Your task to perform on an android device: set default search engine in the chrome app Image 0: 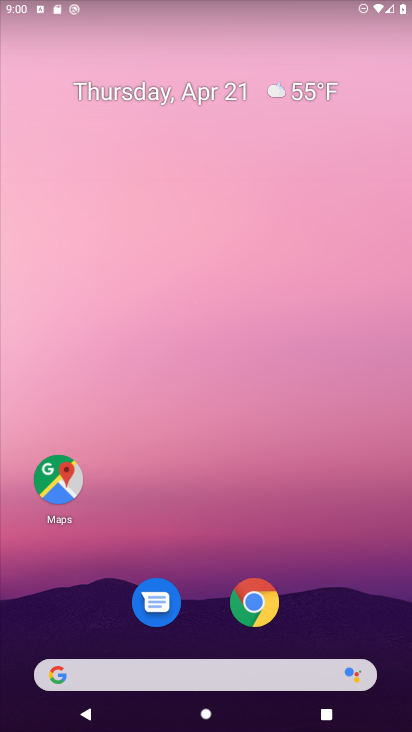
Step 0: click (257, 610)
Your task to perform on an android device: set default search engine in the chrome app Image 1: 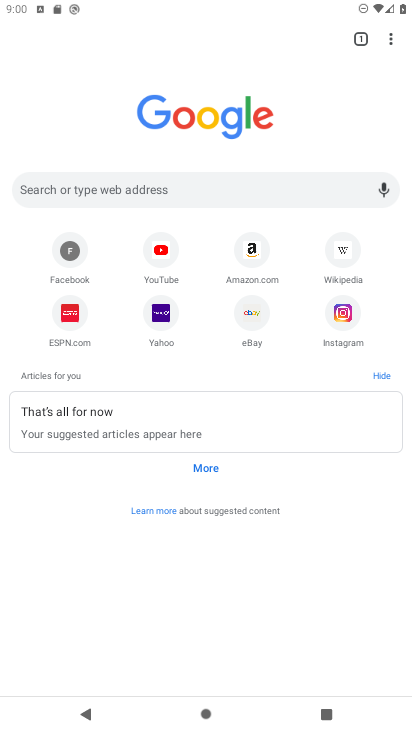
Step 1: click (394, 43)
Your task to perform on an android device: set default search engine in the chrome app Image 2: 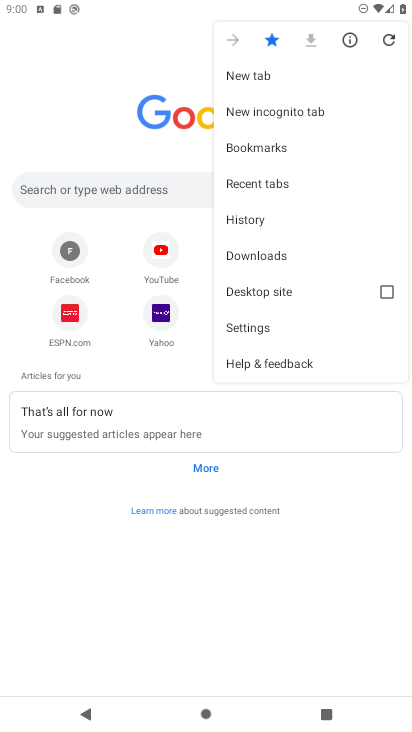
Step 2: click (244, 327)
Your task to perform on an android device: set default search engine in the chrome app Image 3: 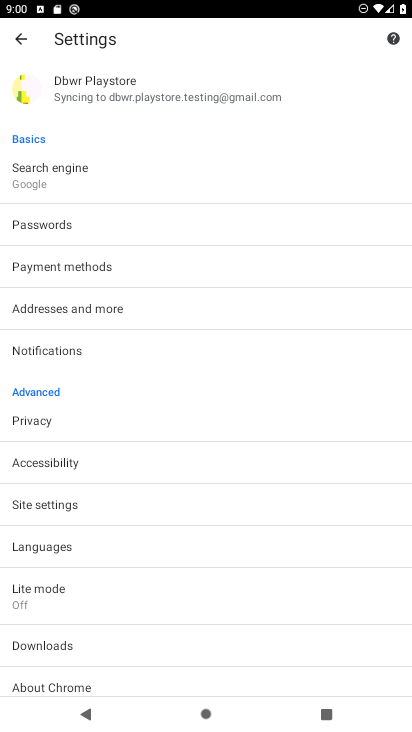
Step 3: click (59, 202)
Your task to perform on an android device: set default search engine in the chrome app Image 4: 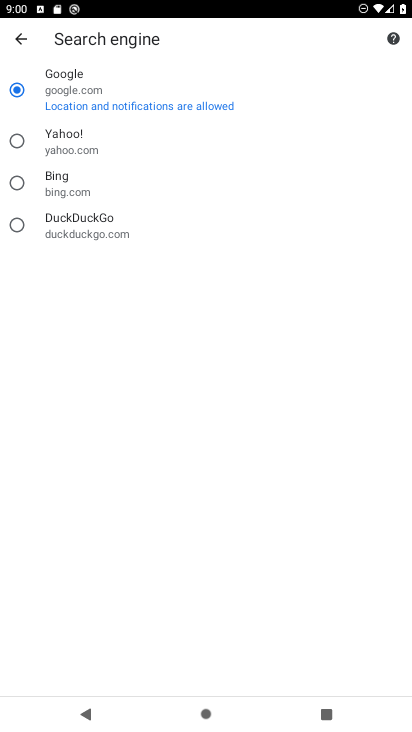
Step 4: click (88, 200)
Your task to perform on an android device: set default search engine in the chrome app Image 5: 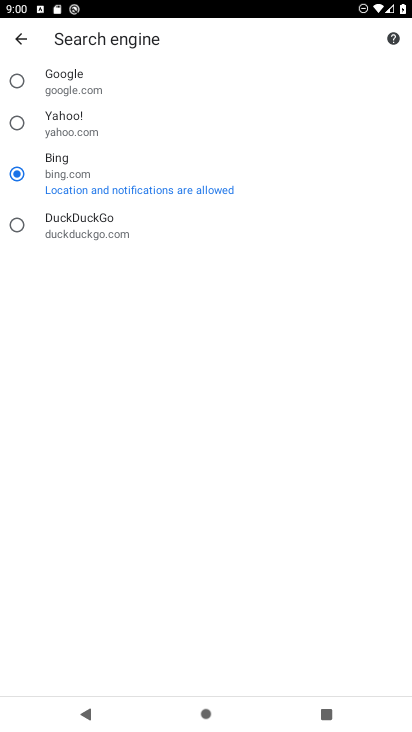
Step 5: task complete